Your task to perform on an android device: turn off data saver in the chrome app Image 0: 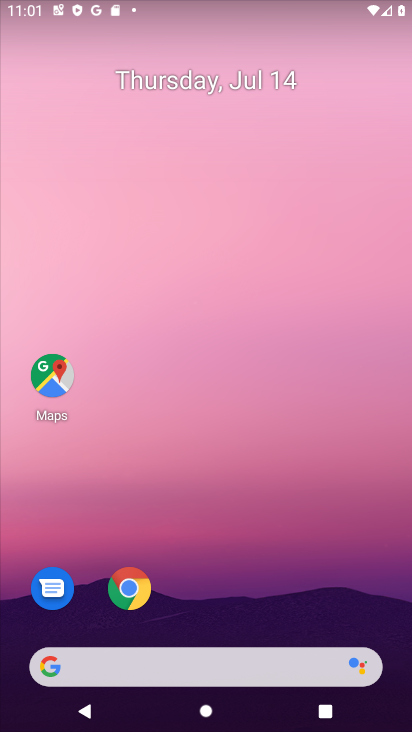
Step 0: click (135, 592)
Your task to perform on an android device: turn off data saver in the chrome app Image 1: 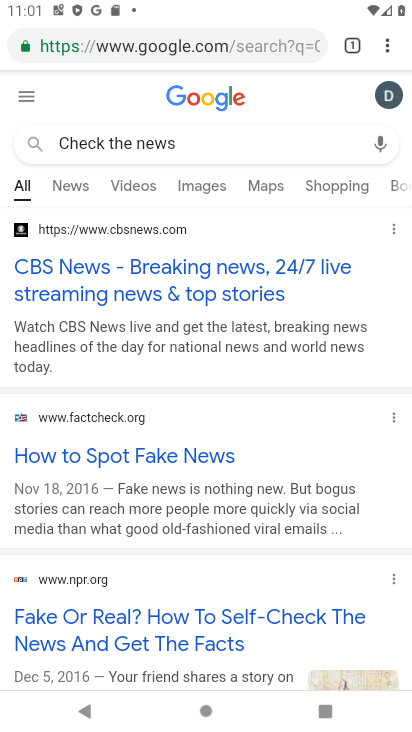
Step 1: drag from (387, 42) to (237, 555)
Your task to perform on an android device: turn off data saver in the chrome app Image 2: 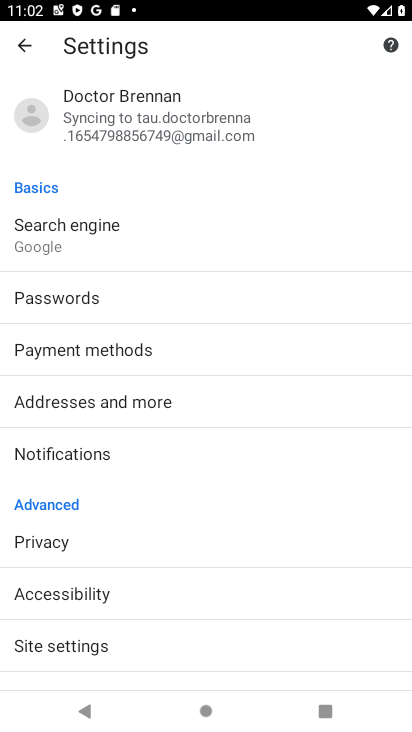
Step 2: drag from (26, 569) to (52, 223)
Your task to perform on an android device: turn off data saver in the chrome app Image 3: 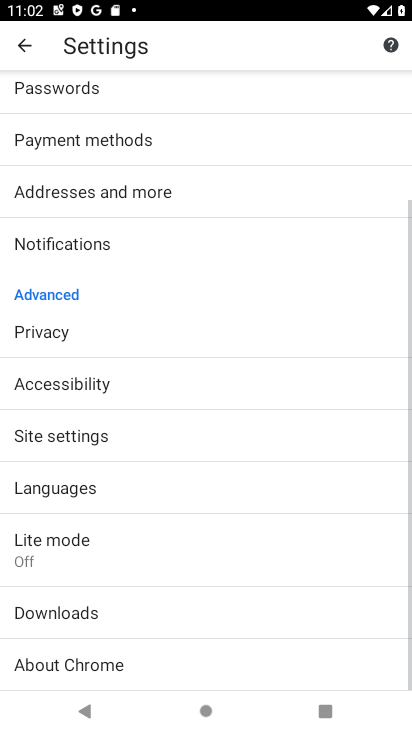
Step 3: click (70, 564)
Your task to perform on an android device: turn off data saver in the chrome app Image 4: 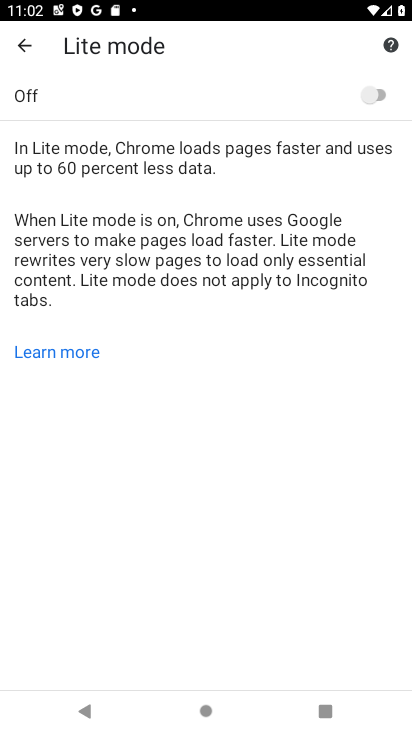
Step 4: task complete